Your task to perform on an android device: Is it going to rain tomorrow? Image 0: 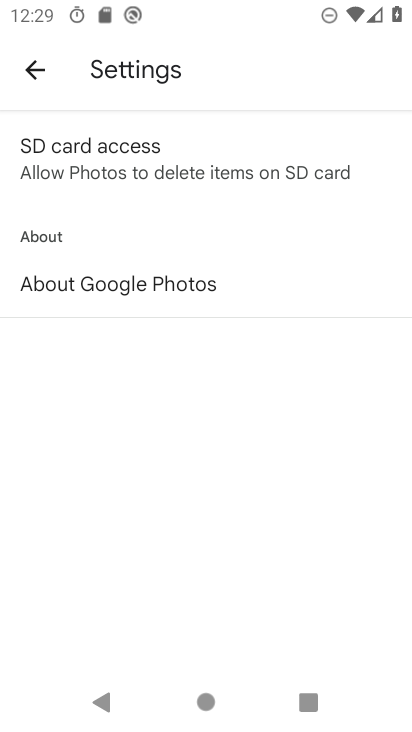
Step 0: press home button
Your task to perform on an android device: Is it going to rain tomorrow? Image 1: 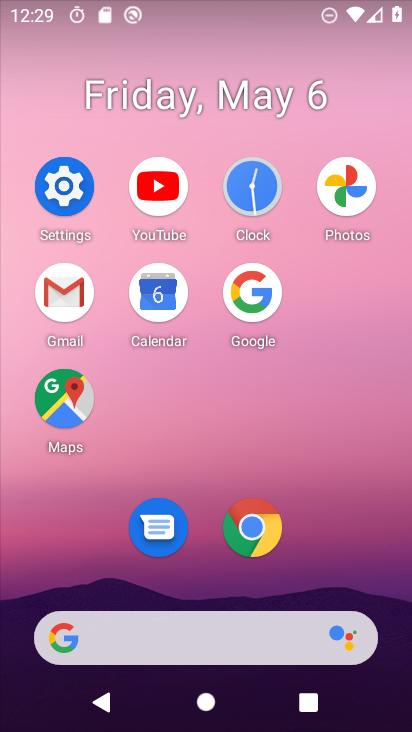
Step 1: drag from (314, 576) to (319, 208)
Your task to perform on an android device: Is it going to rain tomorrow? Image 2: 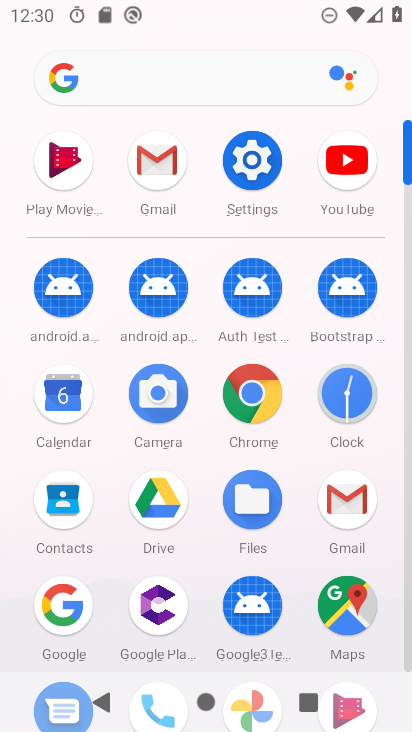
Step 2: click (60, 600)
Your task to perform on an android device: Is it going to rain tomorrow? Image 3: 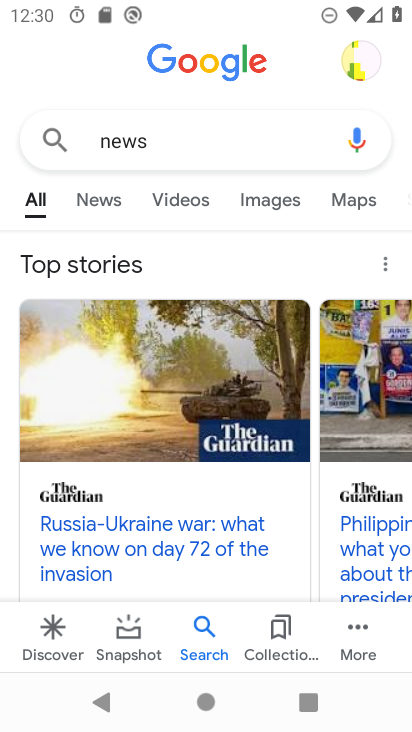
Step 3: click (176, 151)
Your task to perform on an android device: Is it going to rain tomorrow? Image 4: 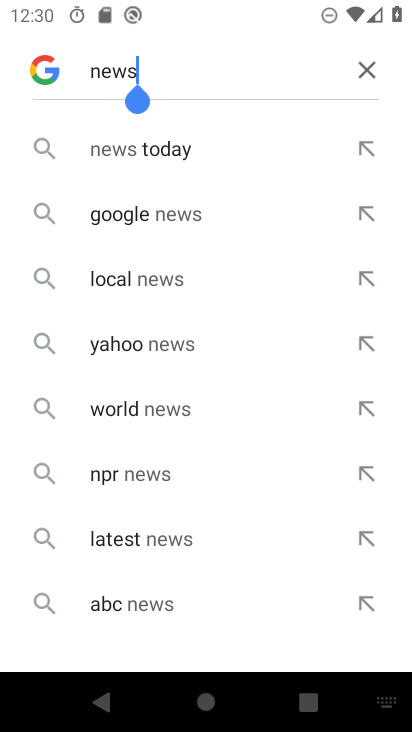
Step 4: click (359, 68)
Your task to perform on an android device: Is it going to rain tomorrow? Image 5: 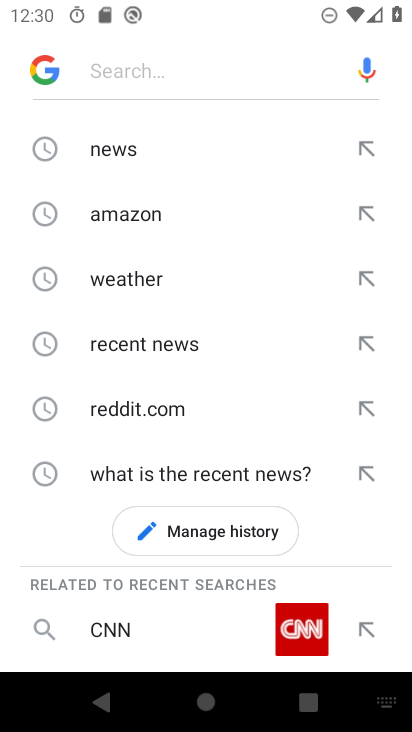
Step 5: click (171, 273)
Your task to perform on an android device: Is it going to rain tomorrow? Image 6: 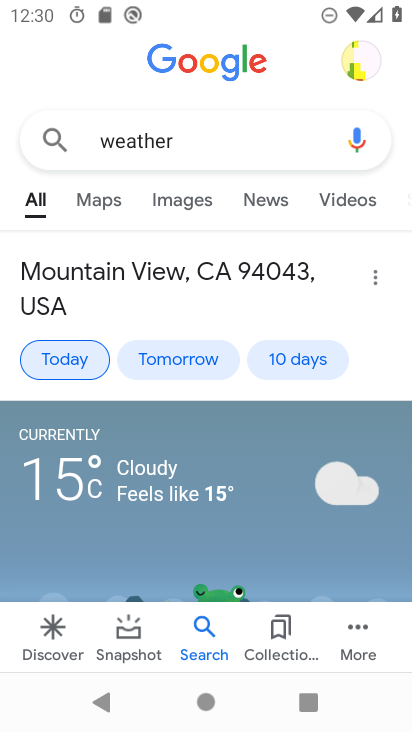
Step 6: task complete